Your task to perform on an android device: remove spam from my inbox in the gmail app Image 0: 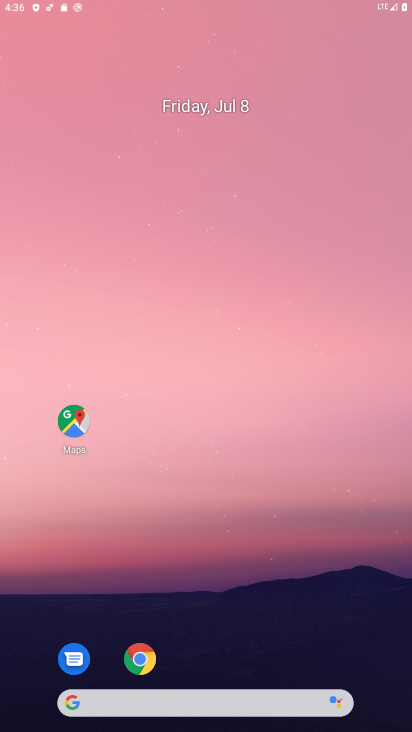
Step 0: press home button
Your task to perform on an android device: remove spam from my inbox in the gmail app Image 1: 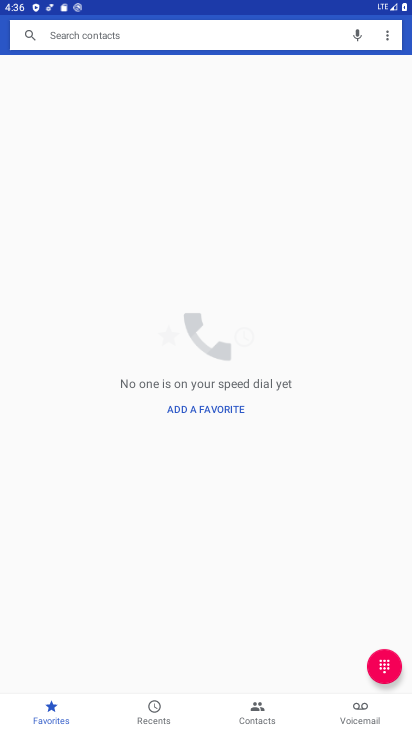
Step 1: click (280, 12)
Your task to perform on an android device: remove spam from my inbox in the gmail app Image 2: 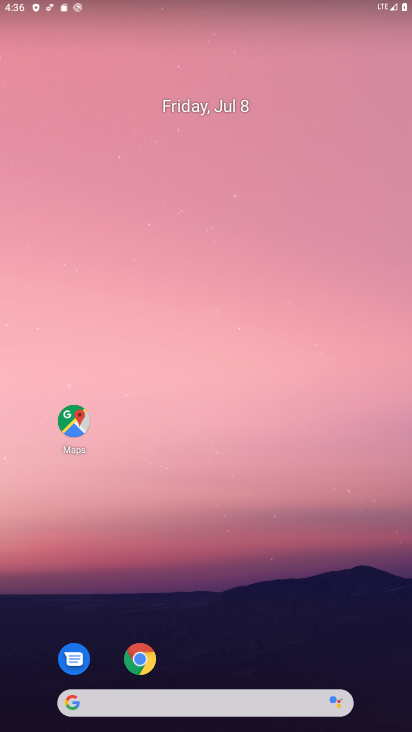
Step 2: drag from (345, 671) to (137, 44)
Your task to perform on an android device: remove spam from my inbox in the gmail app Image 3: 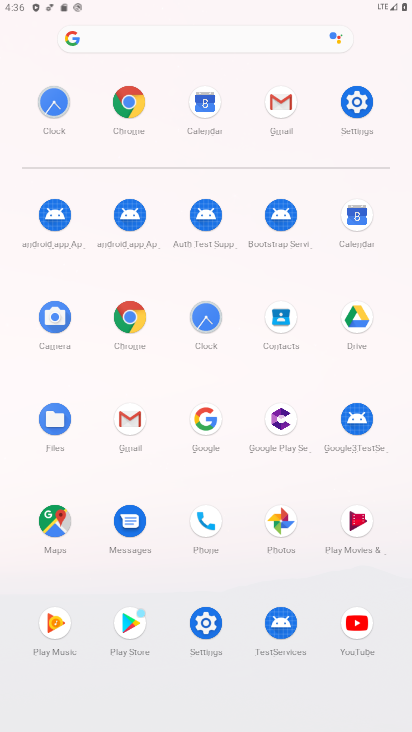
Step 3: click (293, 110)
Your task to perform on an android device: remove spam from my inbox in the gmail app Image 4: 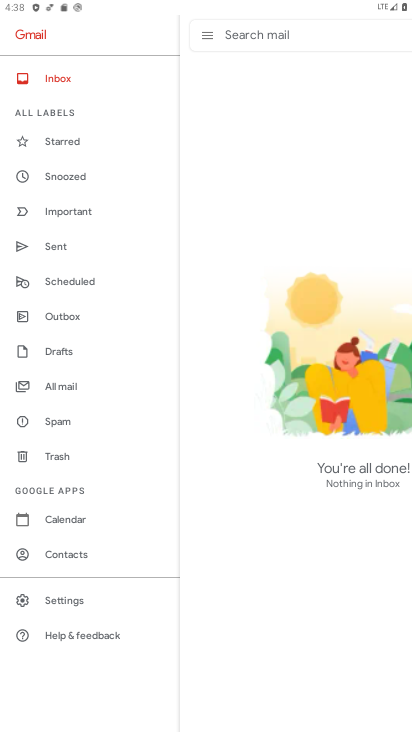
Step 4: task complete